Your task to perform on an android device: check out phone information Image 0: 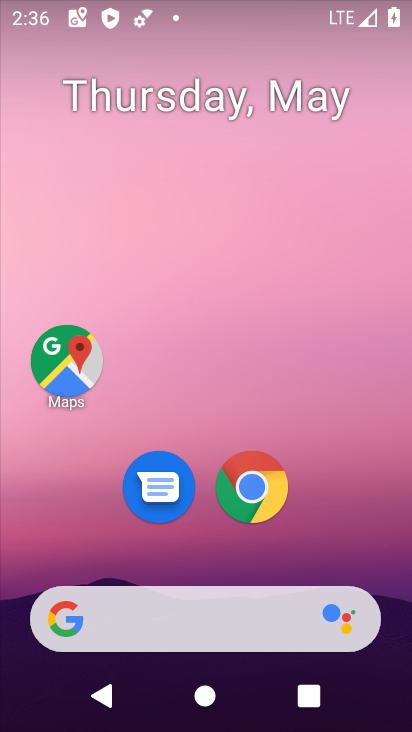
Step 0: drag from (217, 532) to (284, 2)
Your task to perform on an android device: check out phone information Image 1: 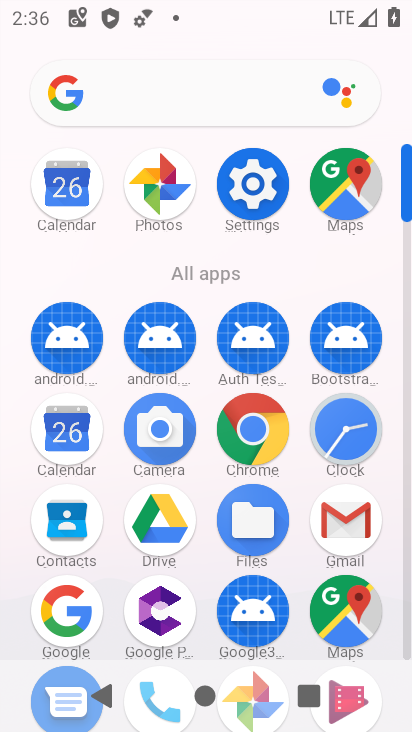
Step 1: click (266, 187)
Your task to perform on an android device: check out phone information Image 2: 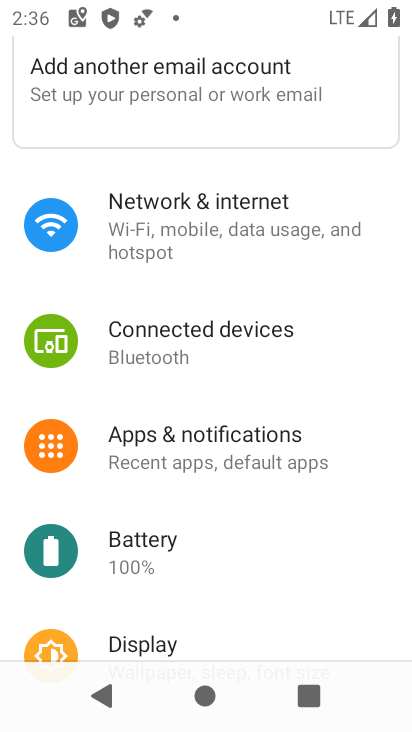
Step 2: drag from (277, 191) to (285, 141)
Your task to perform on an android device: check out phone information Image 3: 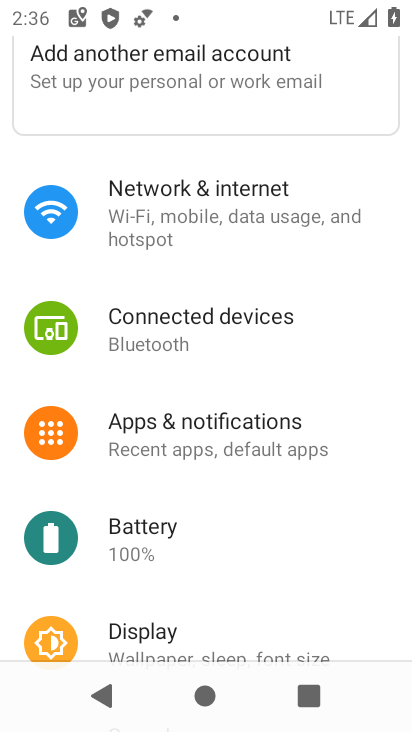
Step 3: drag from (222, 518) to (258, 116)
Your task to perform on an android device: check out phone information Image 4: 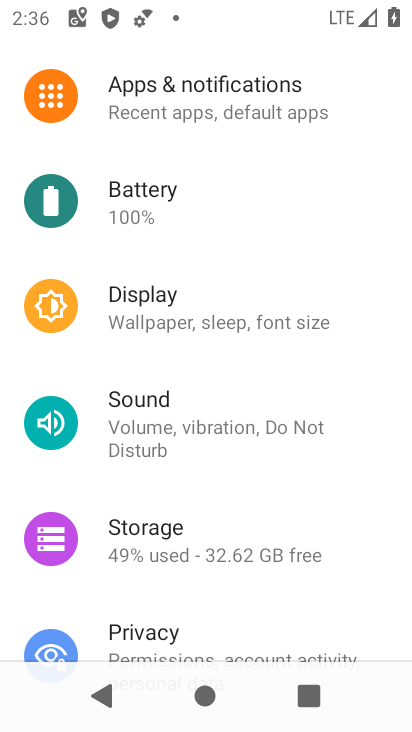
Step 4: drag from (218, 564) to (231, 157)
Your task to perform on an android device: check out phone information Image 5: 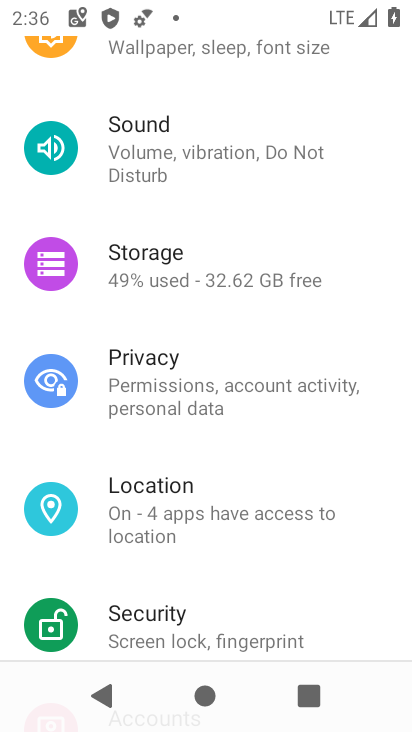
Step 5: drag from (231, 532) to (302, 76)
Your task to perform on an android device: check out phone information Image 6: 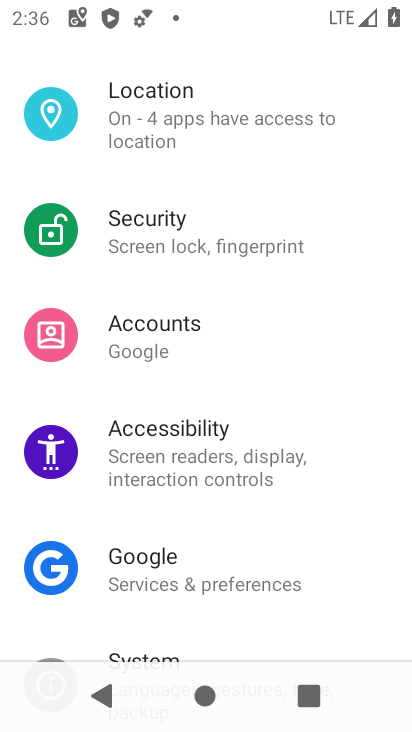
Step 6: drag from (172, 550) to (235, 111)
Your task to perform on an android device: check out phone information Image 7: 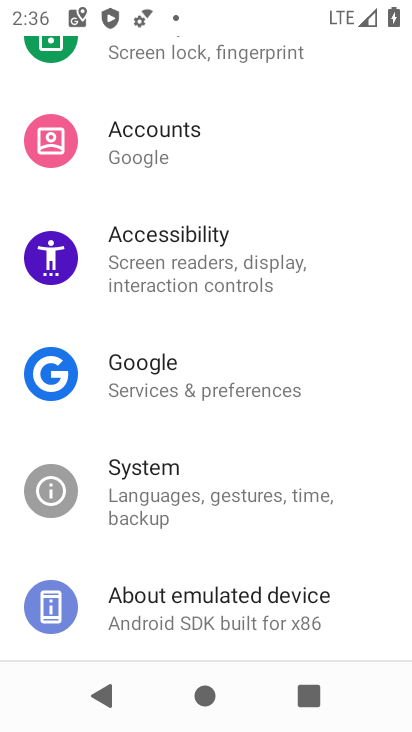
Step 7: drag from (213, 546) to (262, 186)
Your task to perform on an android device: check out phone information Image 8: 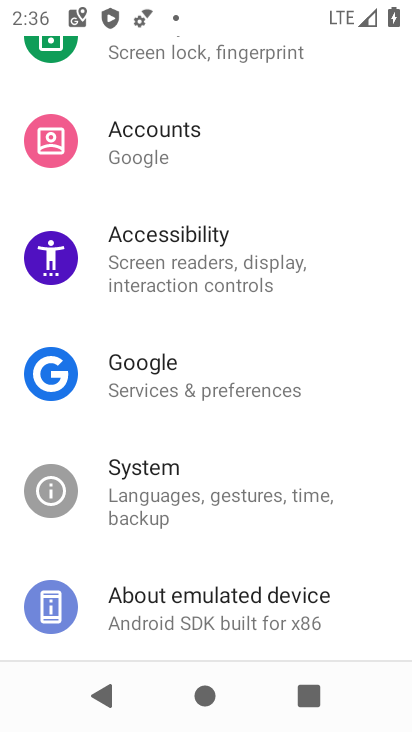
Step 8: click (222, 602)
Your task to perform on an android device: check out phone information Image 9: 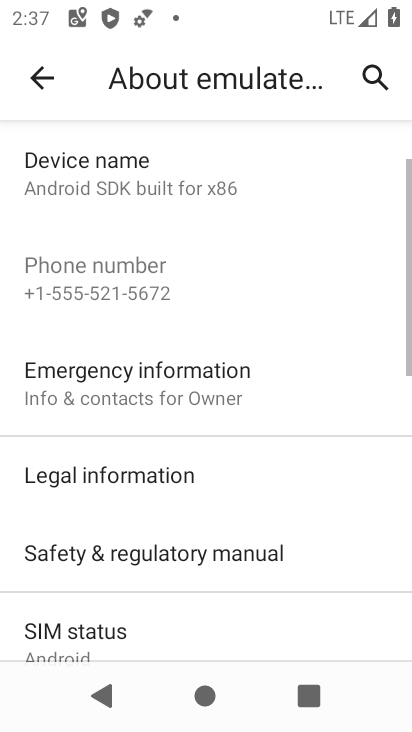
Step 9: task complete